Your task to perform on an android device: change the clock display to show seconds Image 0: 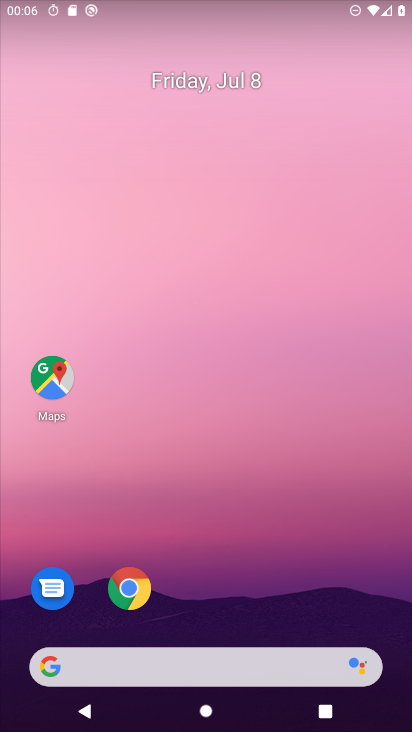
Step 0: drag from (318, 600) to (282, 86)
Your task to perform on an android device: change the clock display to show seconds Image 1: 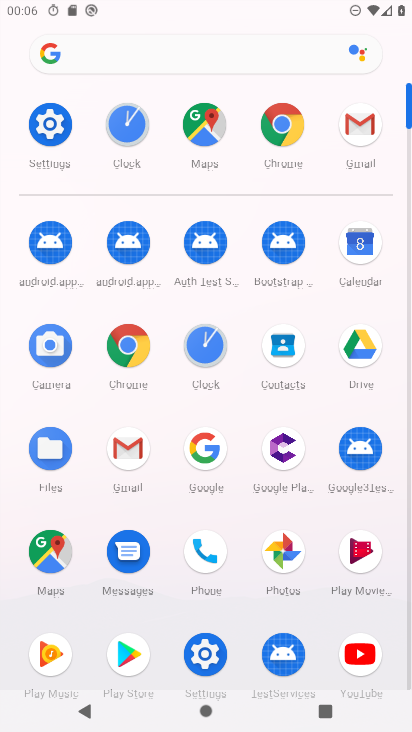
Step 1: click (212, 359)
Your task to perform on an android device: change the clock display to show seconds Image 2: 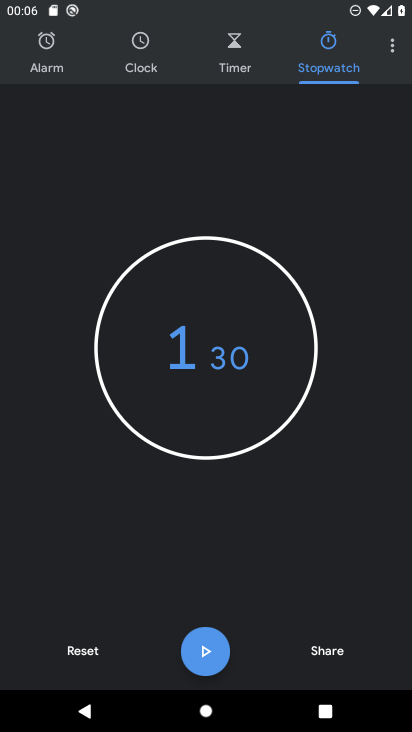
Step 2: click (396, 52)
Your task to perform on an android device: change the clock display to show seconds Image 3: 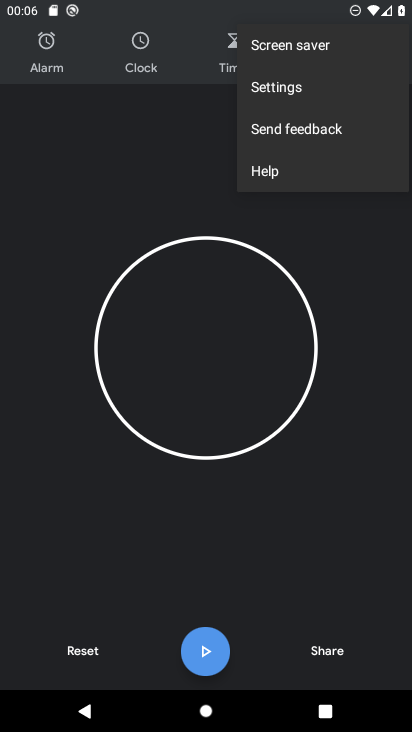
Step 3: click (291, 93)
Your task to perform on an android device: change the clock display to show seconds Image 4: 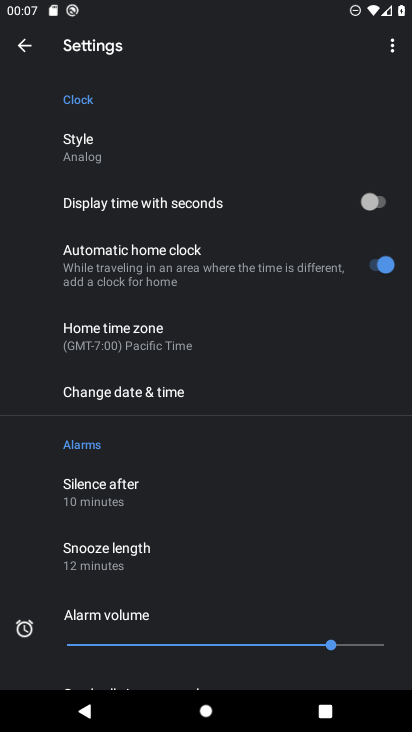
Step 4: click (361, 201)
Your task to perform on an android device: change the clock display to show seconds Image 5: 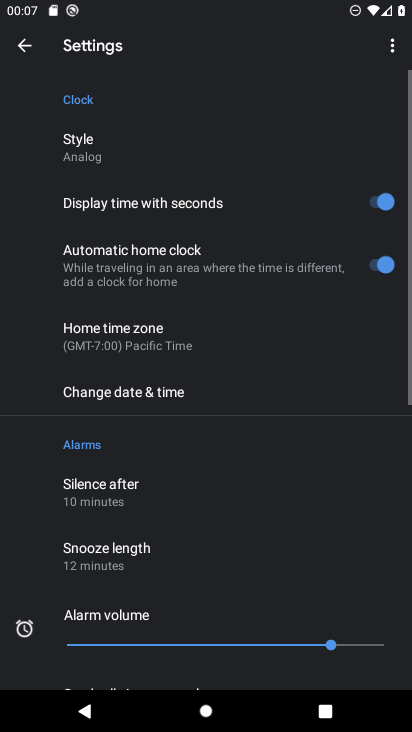
Step 5: task complete